Your task to perform on an android device: Open Wikipedia Image 0: 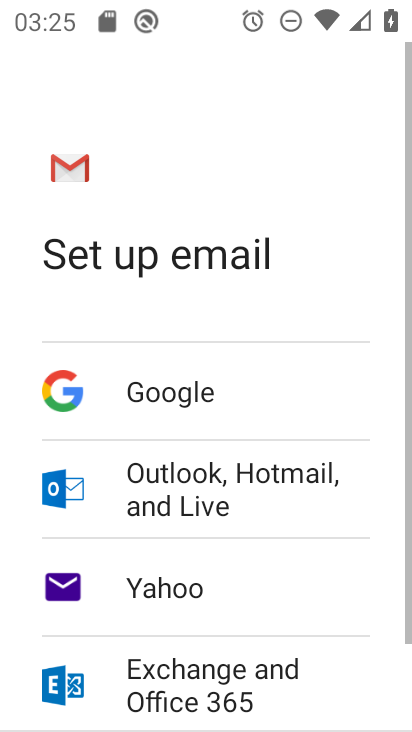
Step 0: press home button
Your task to perform on an android device: Open Wikipedia Image 1: 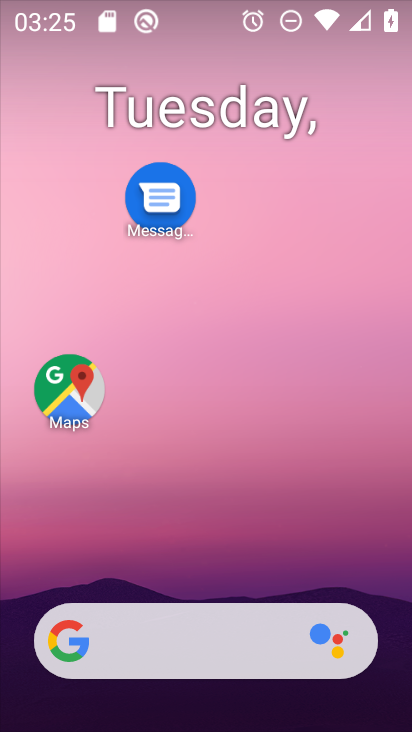
Step 1: click (230, 646)
Your task to perform on an android device: Open Wikipedia Image 2: 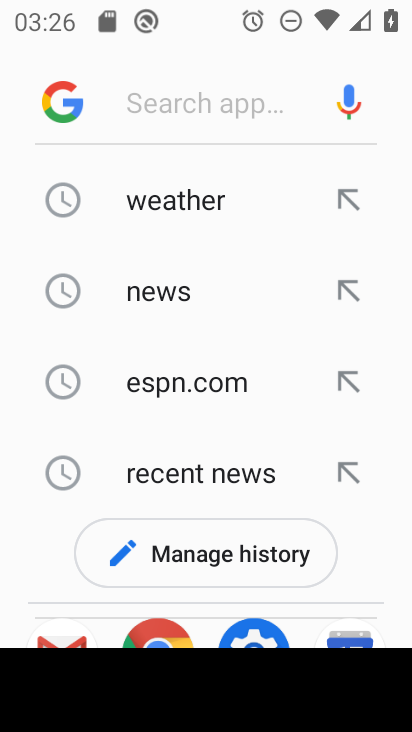
Step 2: type "Wikipedia"
Your task to perform on an android device: Open Wikipedia Image 3: 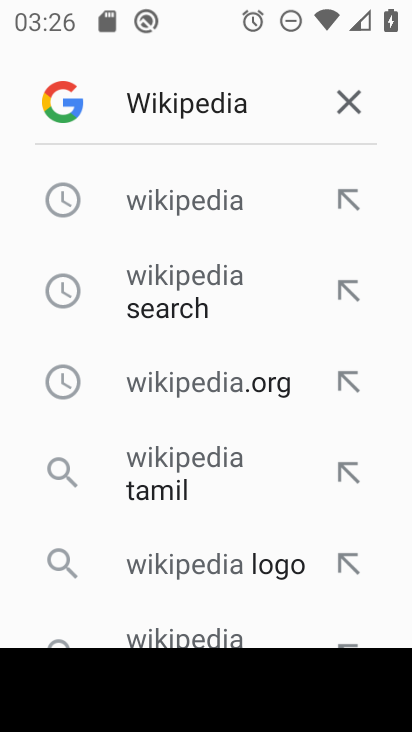
Step 3: click (208, 191)
Your task to perform on an android device: Open Wikipedia Image 4: 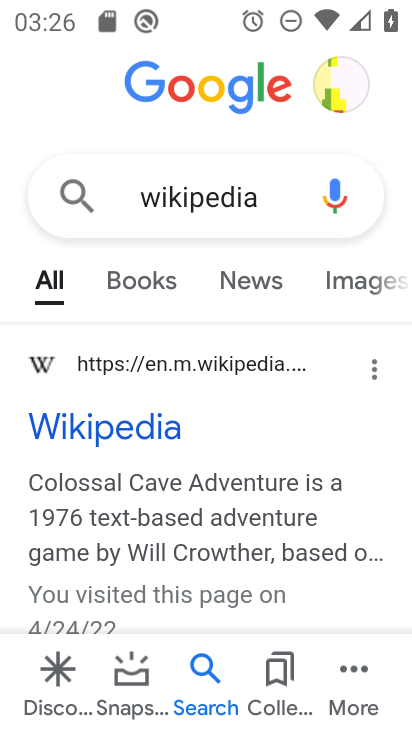
Step 4: click (111, 416)
Your task to perform on an android device: Open Wikipedia Image 5: 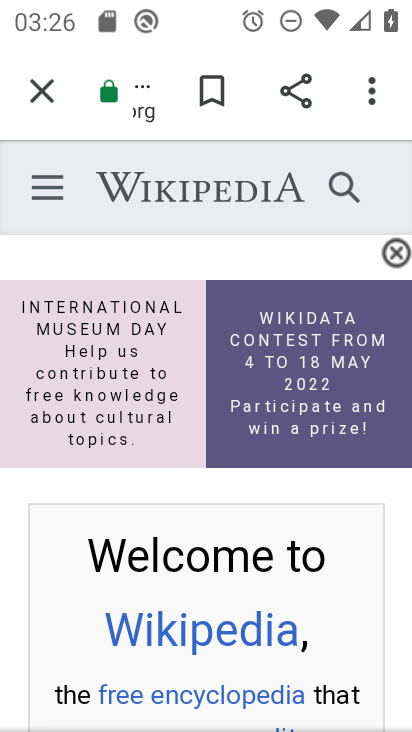
Step 5: task complete